Your task to perform on an android device: turn off airplane mode Image 0: 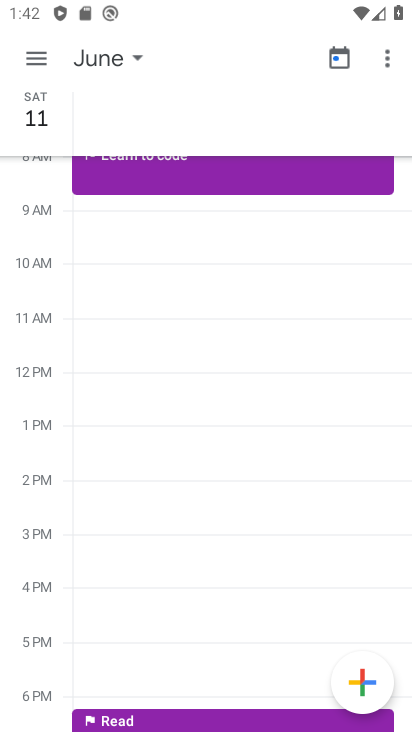
Step 0: press home button
Your task to perform on an android device: turn off airplane mode Image 1: 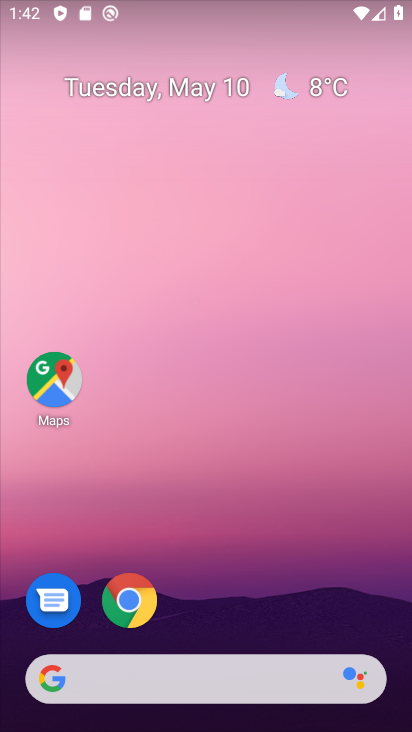
Step 1: task complete